Your task to perform on an android device: Open Google Image 0: 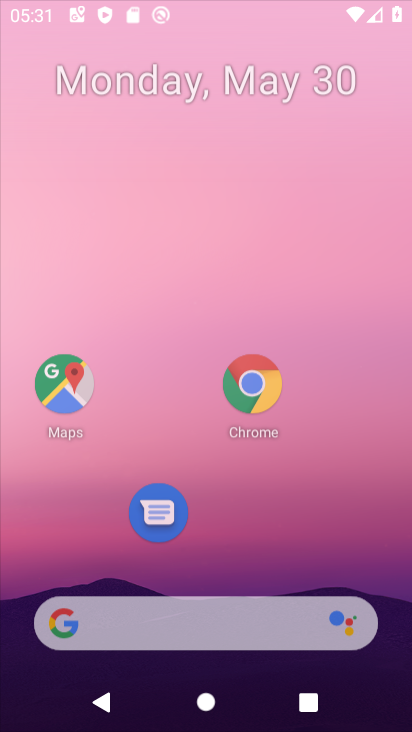
Step 0: drag from (233, 177) to (232, 45)
Your task to perform on an android device: Open Google Image 1: 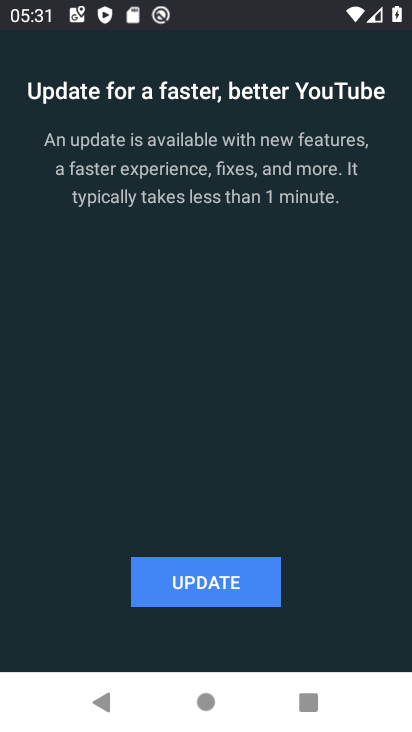
Step 1: press home button
Your task to perform on an android device: Open Google Image 2: 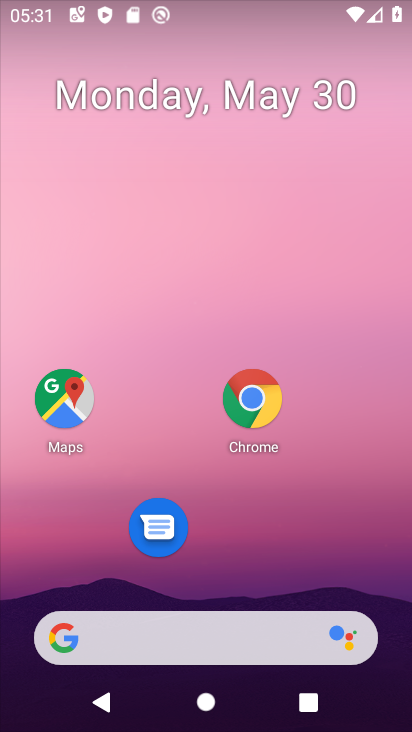
Step 2: drag from (229, 725) to (231, 49)
Your task to perform on an android device: Open Google Image 3: 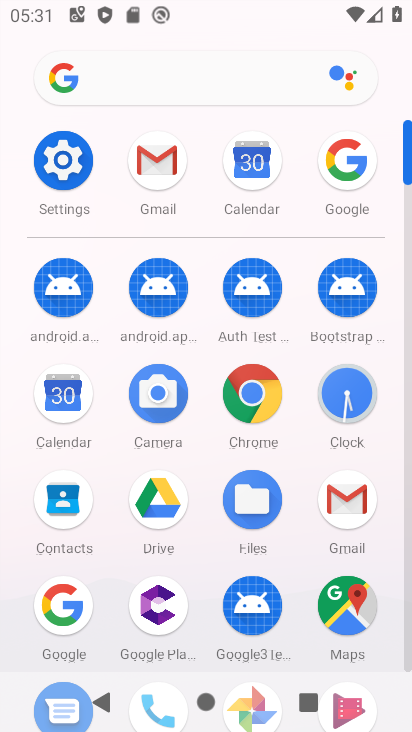
Step 3: click (61, 601)
Your task to perform on an android device: Open Google Image 4: 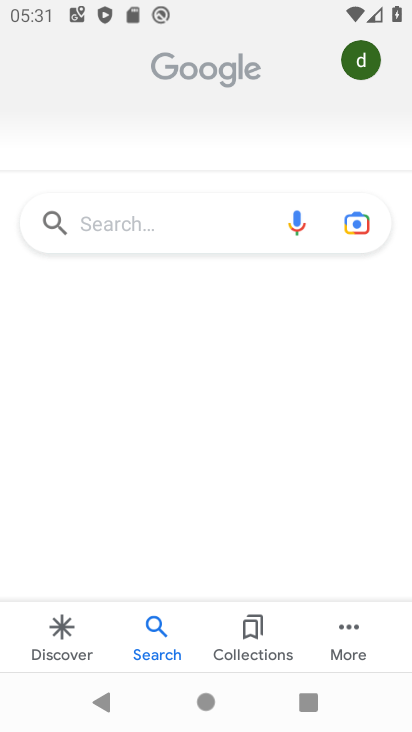
Step 4: task complete